Your task to perform on an android device: Show me recent news Image 0: 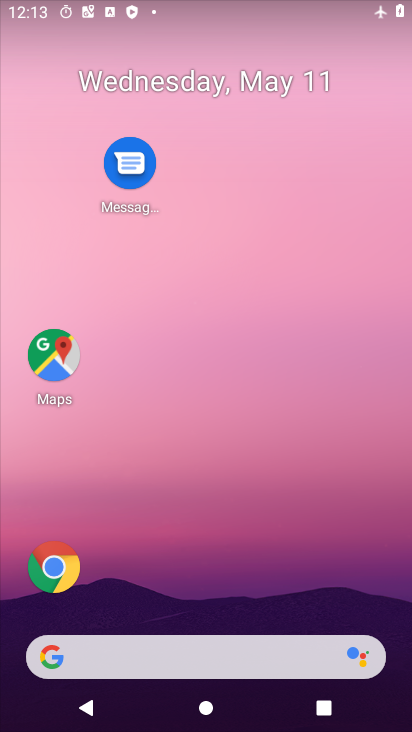
Step 0: drag from (145, 580) to (194, 150)
Your task to perform on an android device: Show me recent news Image 1: 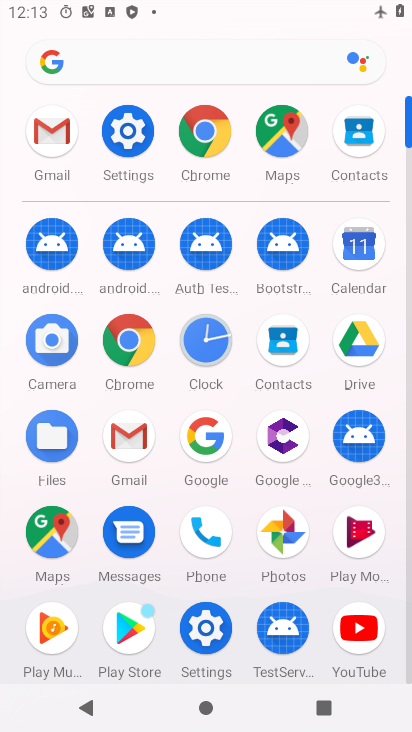
Step 1: click (203, 448)
Your task to perform on an android device: Show me recent news Image 2: 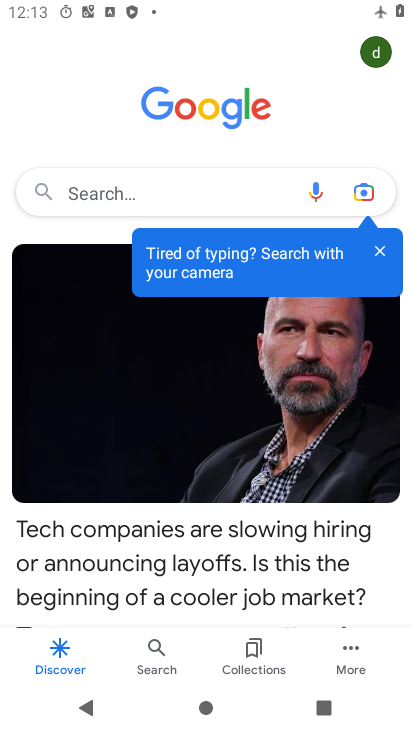
Step 2: task complete